Your task to perform on an android device: change your default location settings in chrome Image 0: 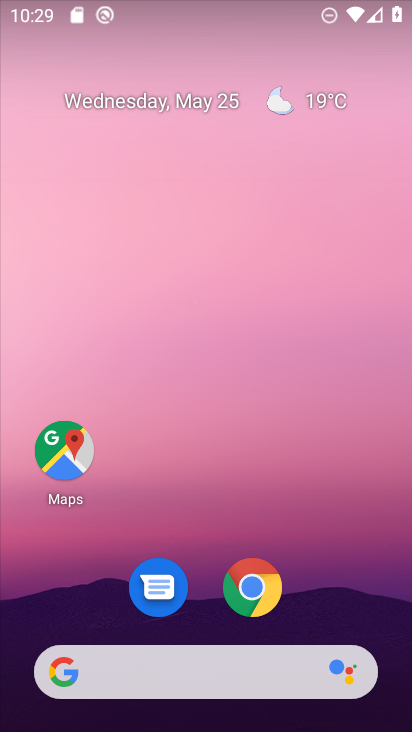
Step 0: click (251, 588)
Your task to perform on an android device: change your default location settings in chrome Image 1: 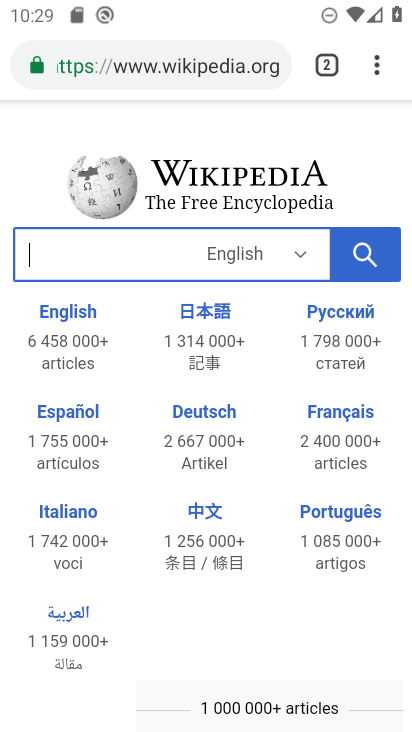
Step 1: click (377, 71)
Your task to perform on an android device: change your default location settings in chrome Image 2: 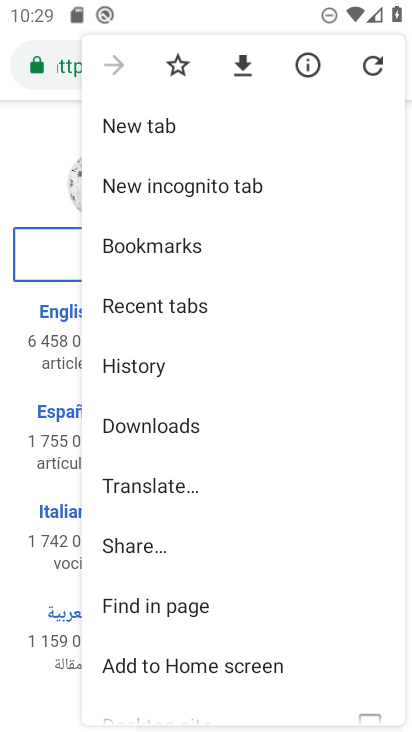
Step 2: drag from (251, 610) to (281, 249)
Your task to perform on an android device: change your default location settings in chrome Image 3: 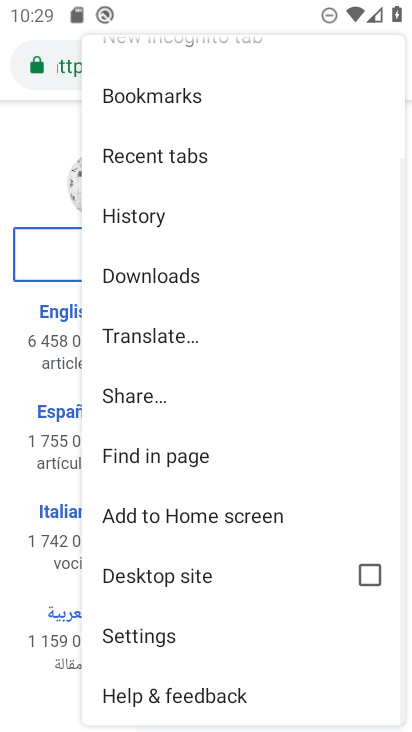
Step 3: click (155, 643)
Your task to perform on an android device: change your default location settings in chrome Image 4: 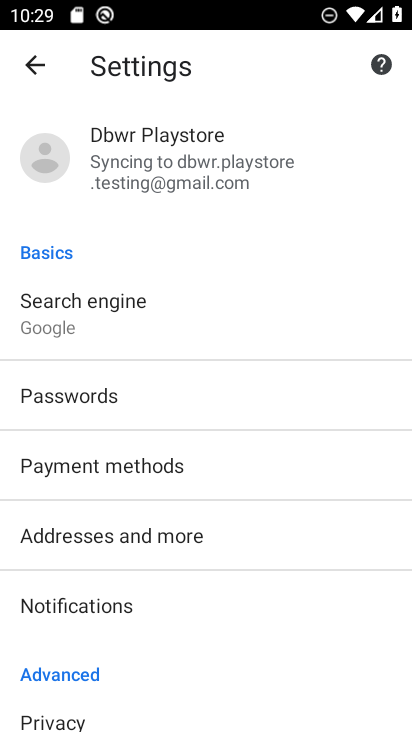
Step 4: drag from (259, 595) to (269, 222)
Your task to perform on an android device: change your default location settings in chrome Image 5: 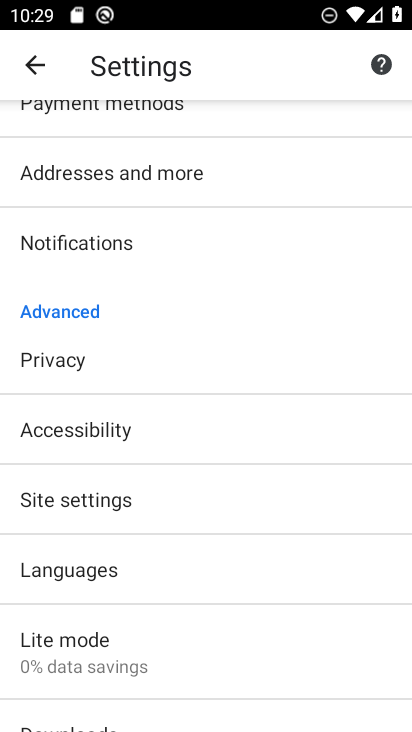
Step 5: click (81, 521)
Your task to perform on an android device: change your default location settings in chrome Image 6: 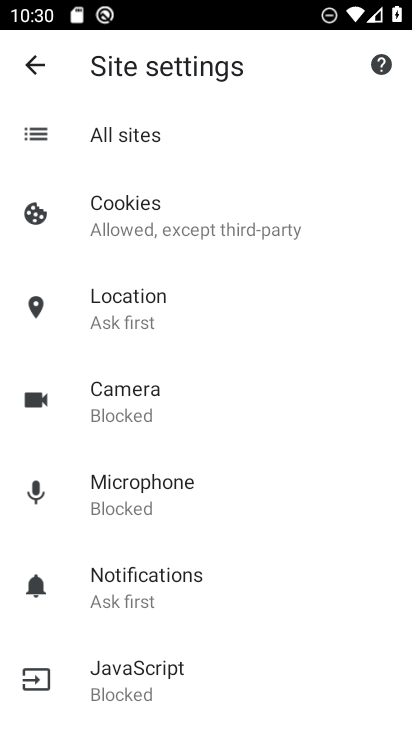
Step 6: click (133, 309)
Your task to perform on an android device: change your default location settings in chrome Image 7: 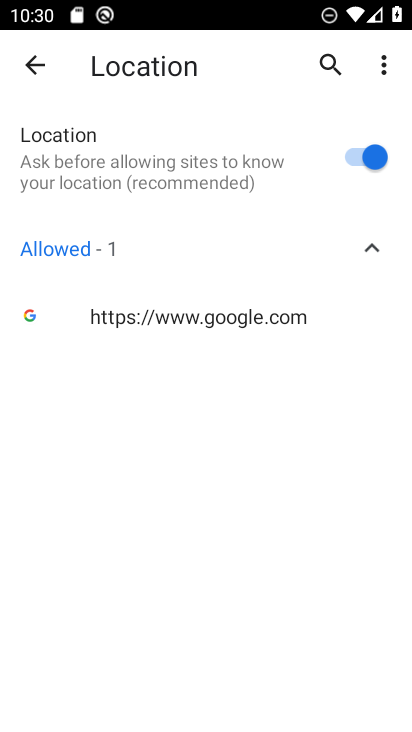
Step 7: click (346, 160)
Your task to perform on an android device: change your default location settings in chrome Image 8: 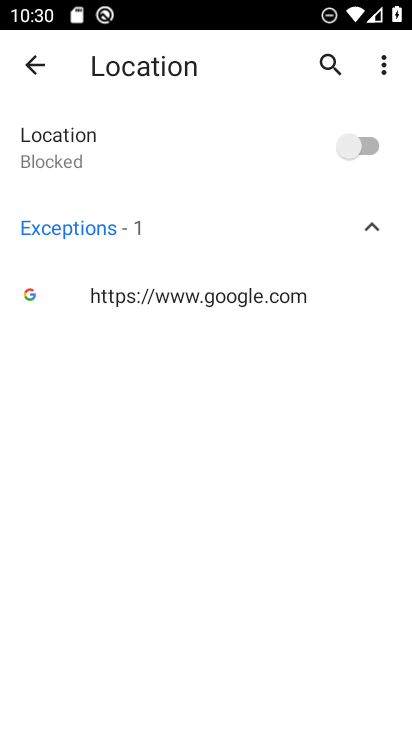
Step 8: task complete